Your task to perform on an android device: open wifi settings Image 0: 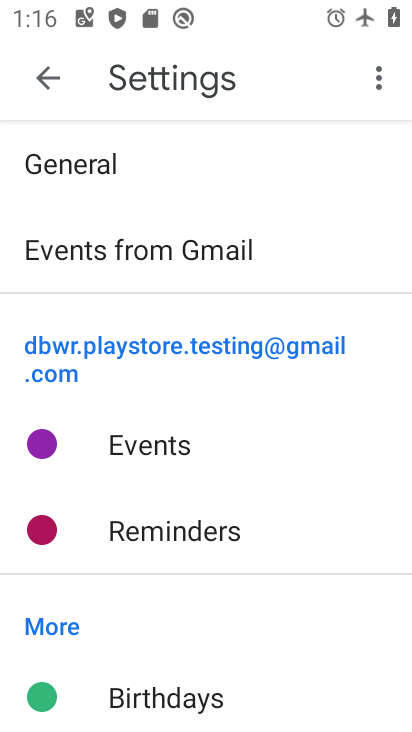
Step 0: press home button
Your task to perform on an android device: open wifi settings Image 1: 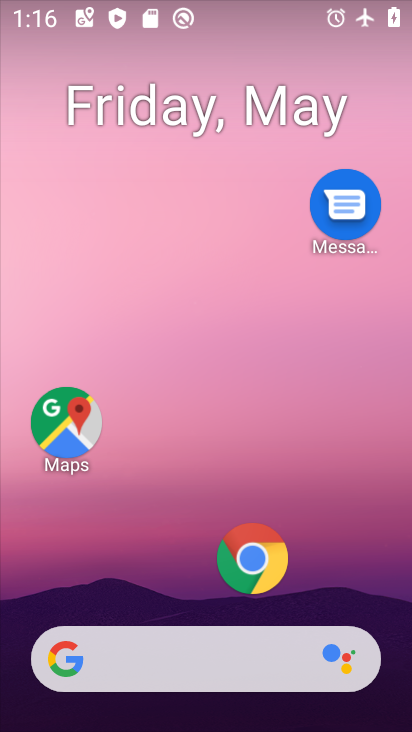
Step 1: drag from (242, 583) to (309, 286)
Your task to perform on an android device: open wifi settings Image 2: 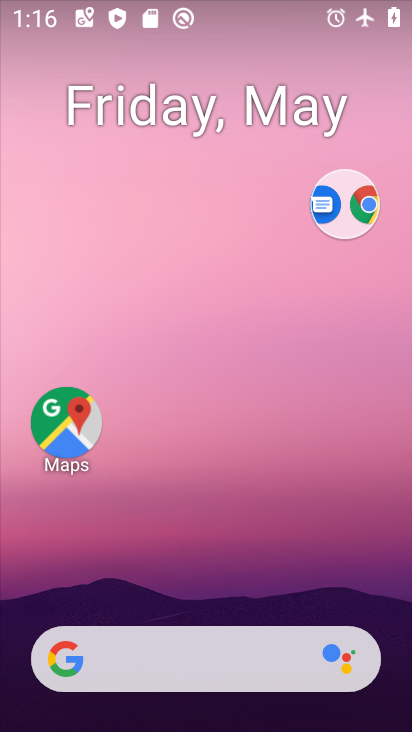
Step 2: drag from (257, 570) to (296, 11)
Your task to perform on an android device: open wifi settings Image 3: 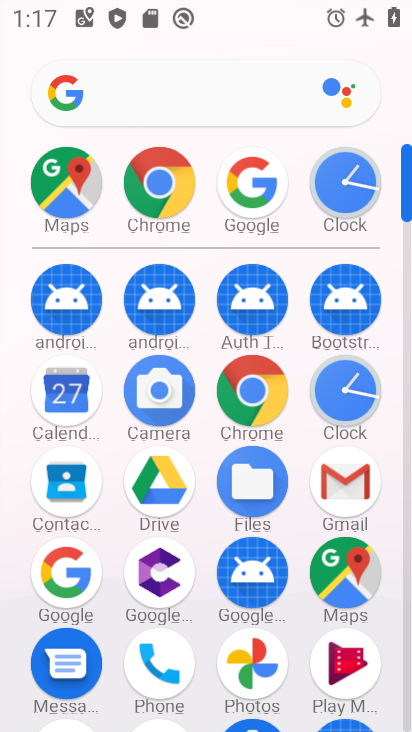
Step 3: drag from (170, 430) to (226, 192)
Your task to perform on an android device: open wifi settings Image 4: 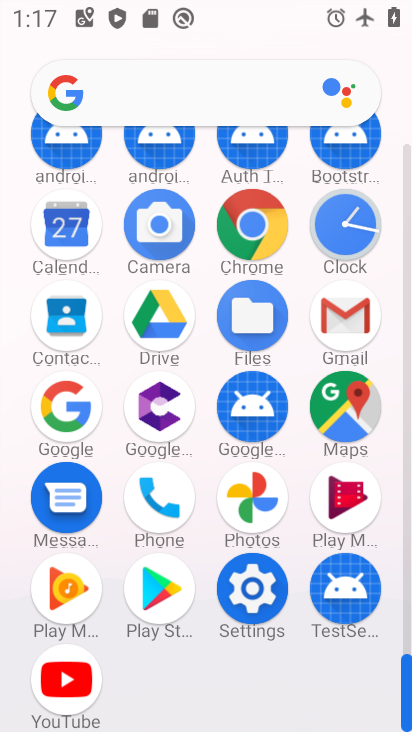
Step 4: click (283, 609)
Your task to perform on an android device: open wifi settings Image 5: 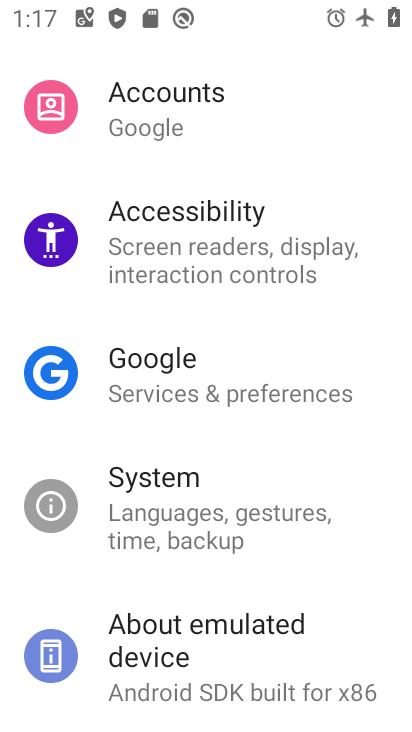
Step 5: drag from (212, 287) to (251, 610)
Your task to perform on an android device: open wifi settings Image 6: 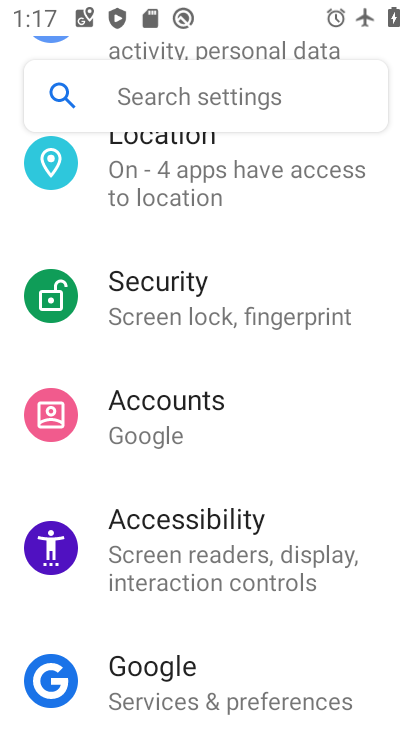
Step 6: drag from (200, 382) to (155, 727)
Your task to perform on an android device: open wifi settings Image 7: 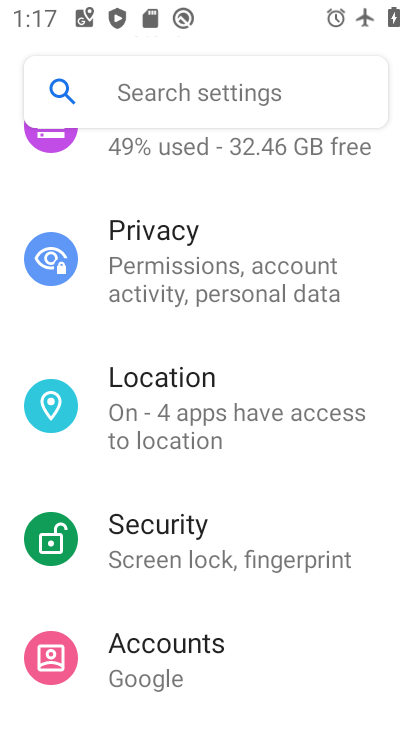
Step 7: drag from (226, 373) to (154, 713)
Your task to perform on an android device: open wifi settings Image 8: 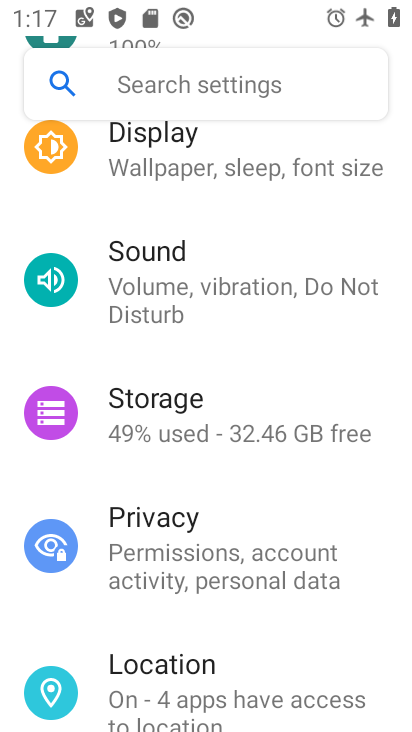
Step 8: drag from (197, 343) to (138, 723)
Your task to perform on an android device: open wifi settings Image 9: 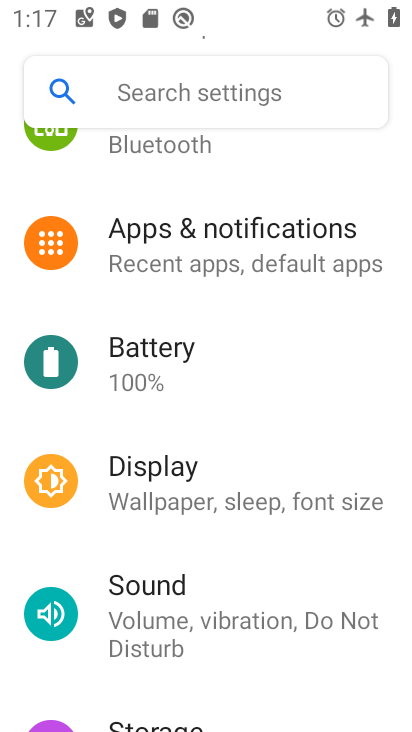
Step 9: drag from (191, 323) to (186, 728)
Your task to perform on an android device: open wifi settings Image 10: 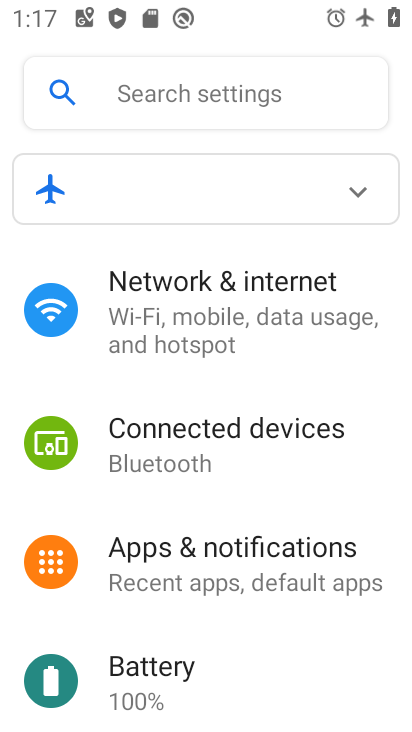
Step 10: click (217, 325)
Your task to perform on an android device: open wifi settings Image 11: 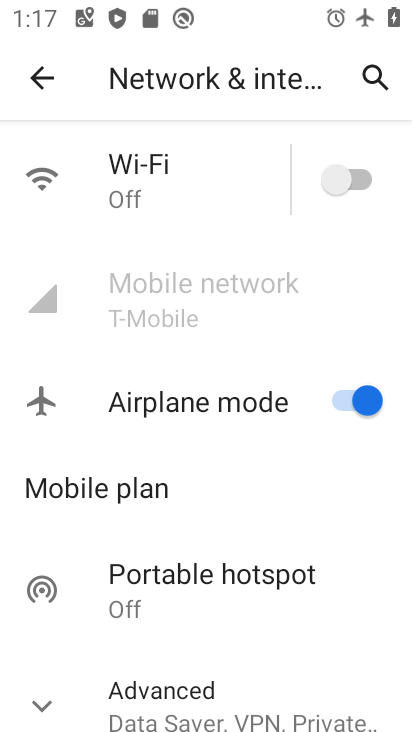
Step 11: click (167, 196)
Your task to perform on an android device: open wifi settings Image 12: 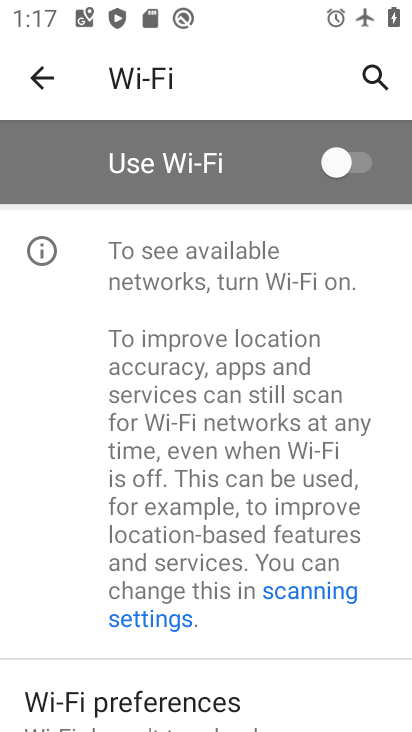
Step 12: task complete